Your task to perform on an android device: Show me the alarms in the clock app Image 0: 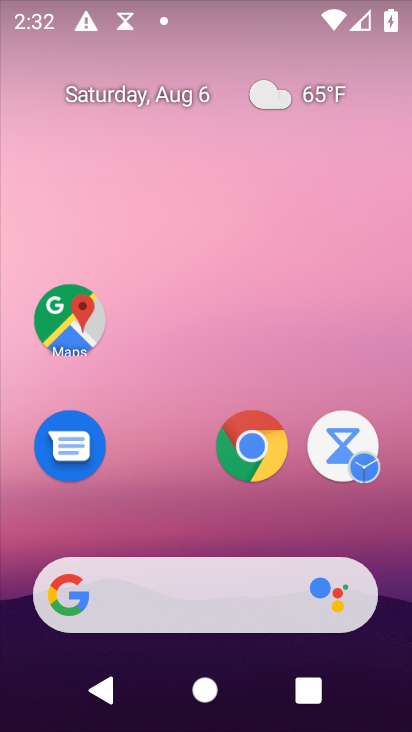
Step 0: drag from (261, 667) to (185, 49)
Your task to perform on an android device: Show me the alarms in the clock app Image 1: 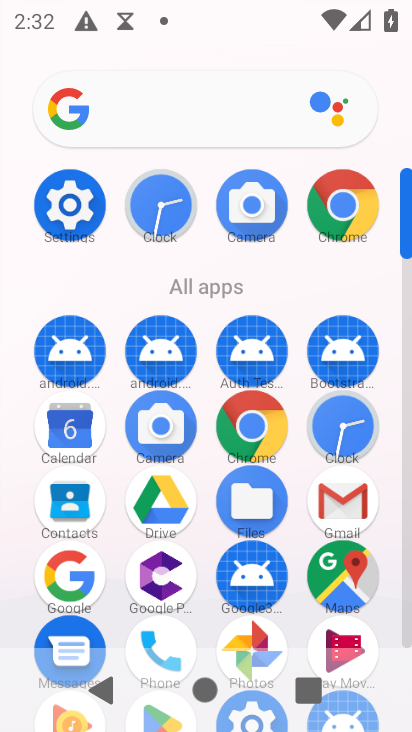
Step 1: click (165, 198)
Your task to perform on an android device: Show me the alarms in the clock app Image 2: 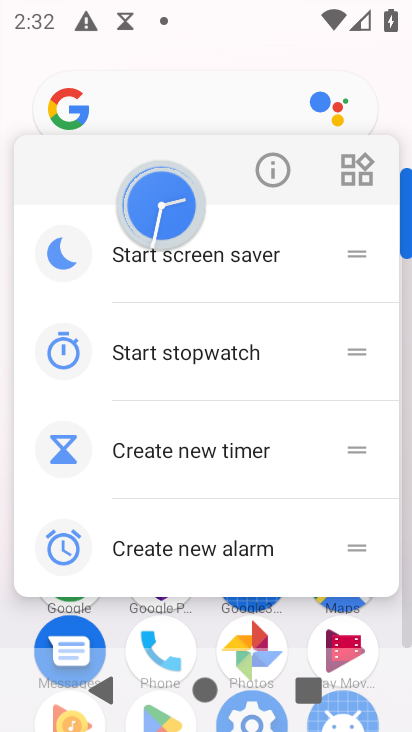
Step 2: click (165, 198)
Your task to perform on an android device: Show me the alarms in the clock app Image 3: 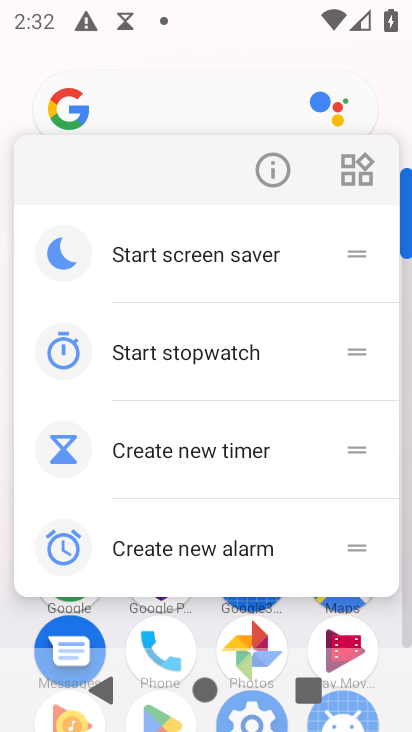
Step 3: click (164, 199)
Your task to perform on an android device: Show me the alarms in the clock app Image 4: 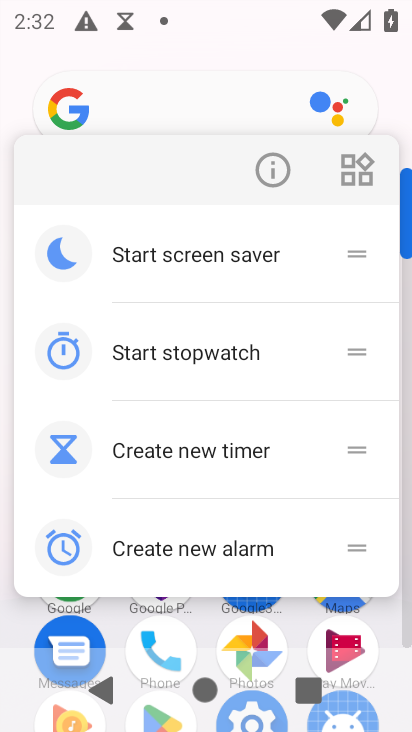
Step 4: click (164, 199)
Your task to perform on an android device: Show me the alarms in the clock app Image 5: 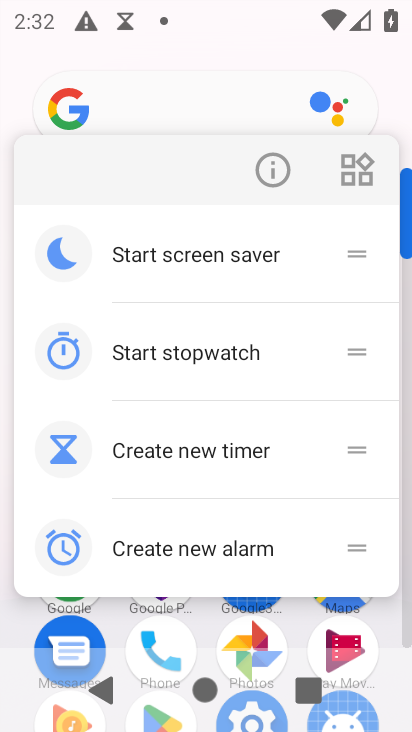
Step 5: click (256, 40)
Your task to perform on an android device: Show me the alarms in the clock app Image 6: 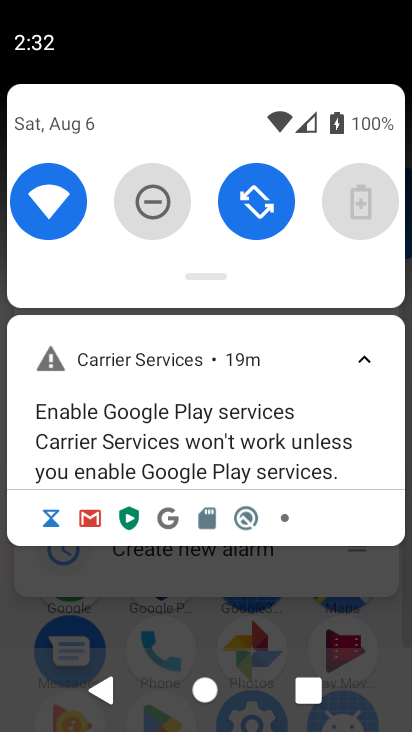
Step 6: click (392, 95)
Your task to perform on an android device: Show me the alarms in the clock app Image 7: 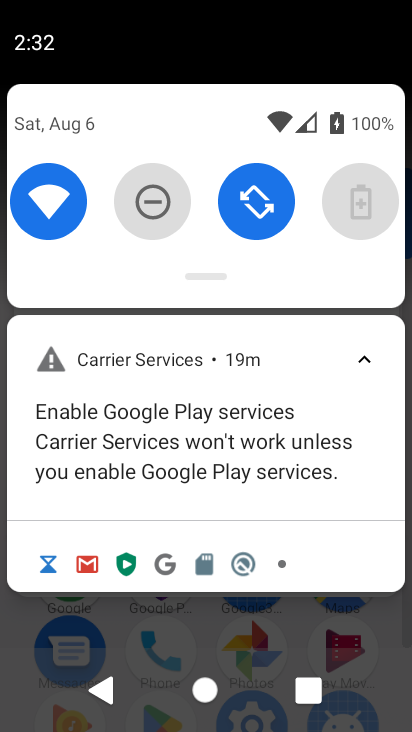
Step 7: click (145, 46)
Your task to perform on an android device: Show me the alarms in the clock app Image 8: 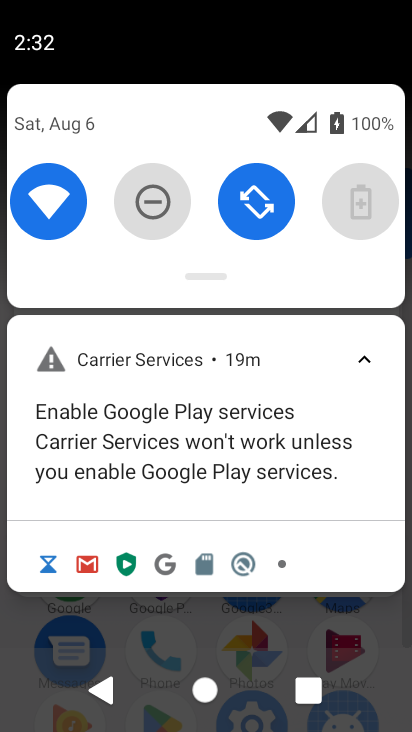
Step 8: click (145, 46)
Your task to perform on an android device: Show me the alarms in the clock app Image 9: 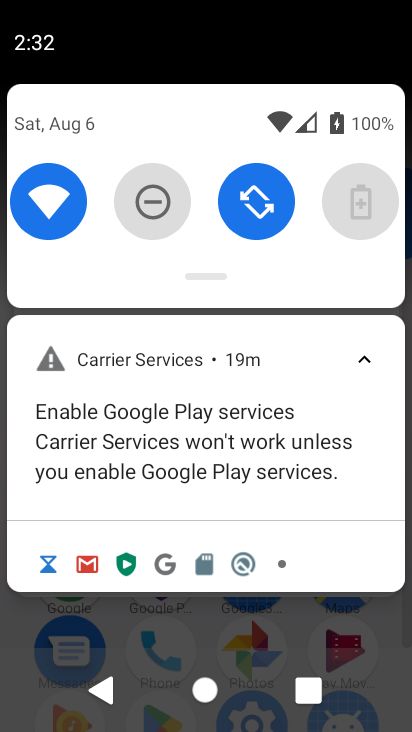
Step 9: click (245, 634)
Your task to perform on an android device: Show me the alarms in the clock app Image 10: 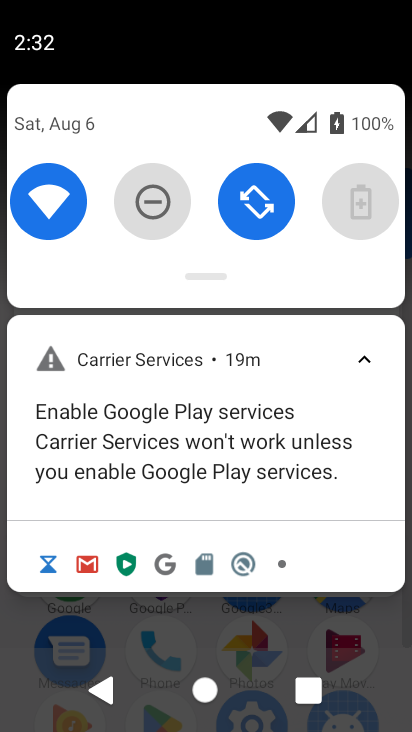
Step 10: click (245, 634)
Your task to perform on an android device: Show me the alarms in the clock app Image 11: 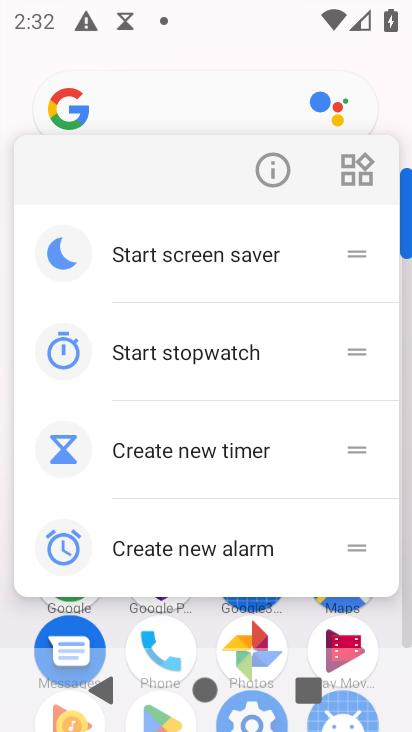
Step 11: click (175, 344)
Your task to perform on an android device: Show me the alarms in the clock app Image 12: 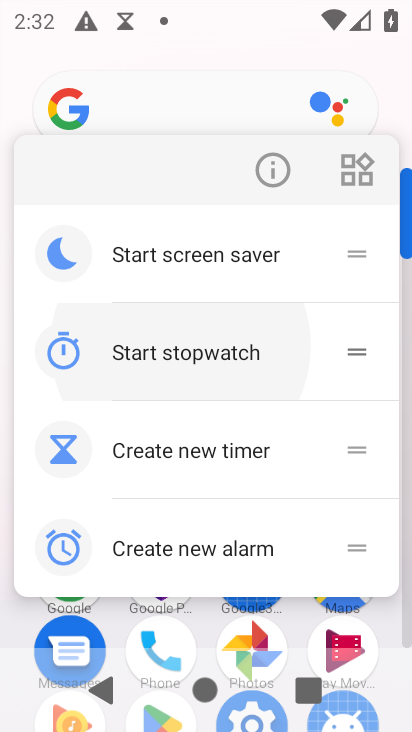
Step 12: click (174, 345)
Your task to perform on an android device: Show me the alarms in the clock app Image 13: 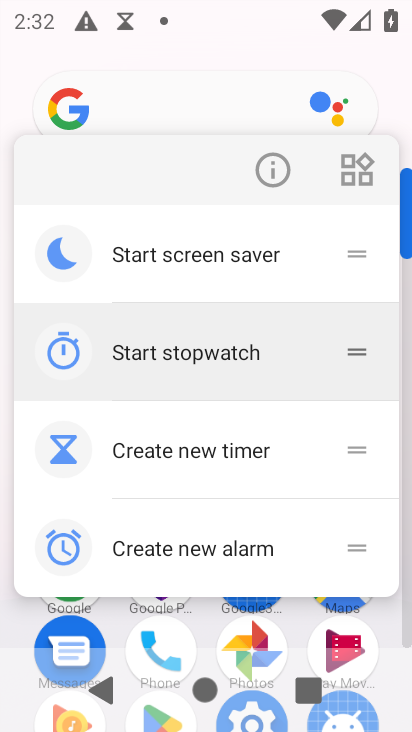
Step 13: click (174, 346)
Your task to perform on an android device: Show me the alarms in the clock app Image 14: 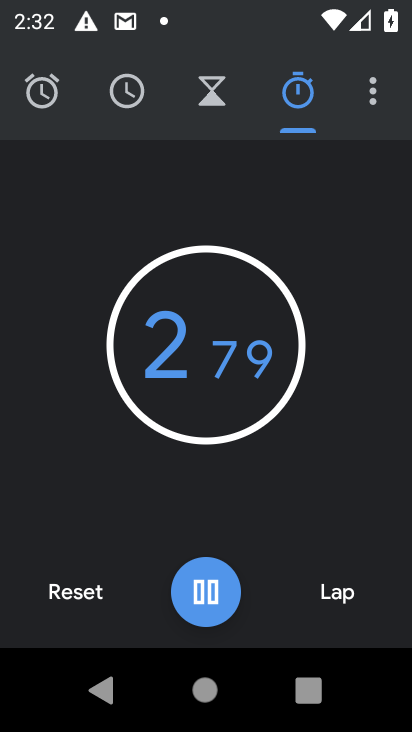
Step 14: click (198, 595)
Your task to perform on an android device: Show me the alarms in the clock app Image 15: 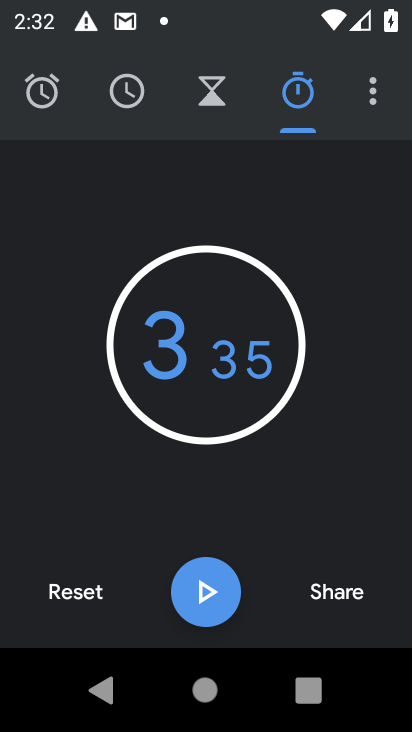
Step 15: click (38, 118)
Your task to perform on an android device: Show me the alarms in the clock app Image 16: 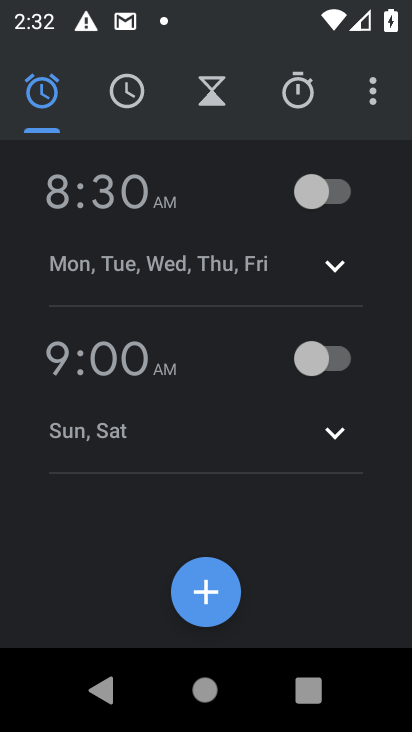
Step 16: click (308, 187)
Your task to perform on an android device: Show me the alarms in the clock app Image 17: 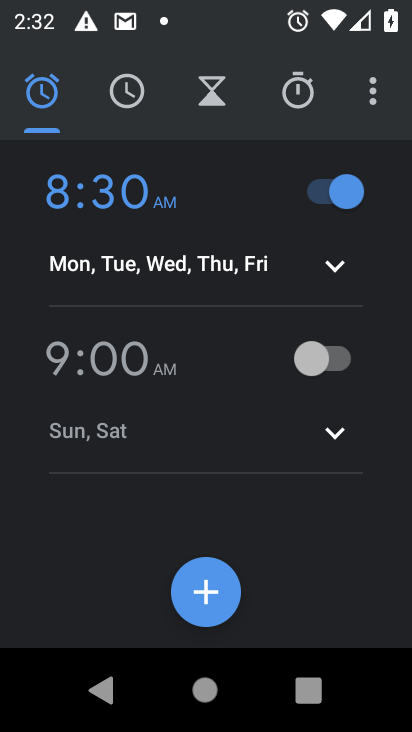
Step 17: click (347, 184)
Your task to perform on an android device: Show me the alarms in the clock app Image 18: 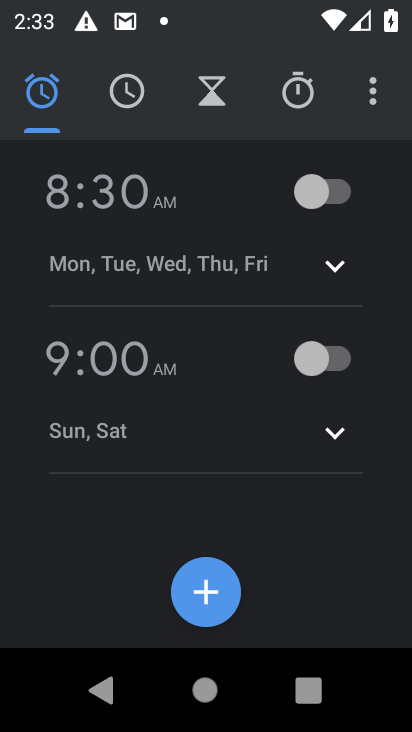
Step 18: task complete